Your task to perform on an android device: change the clock display to show seconds Image 0: 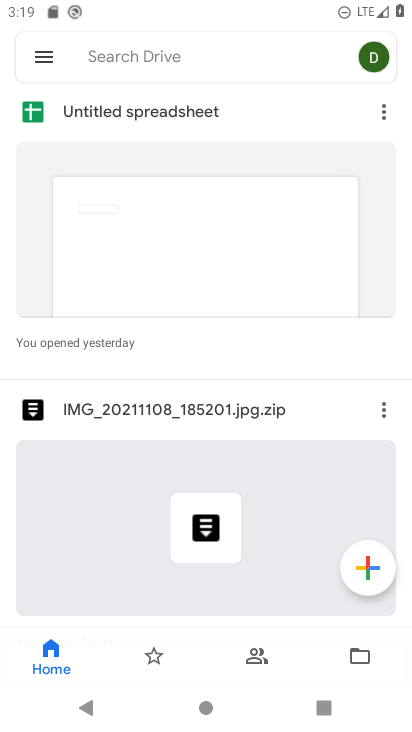
Step 0: press home button
Your task to perform on an android device: change the clock display to show seconds Image 1: 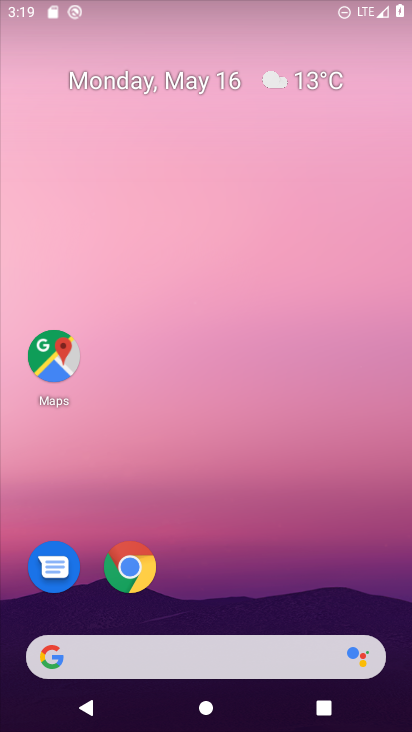
Step 1: drag from (346, 601) to (296, 0)
Your task to perform on an android device: change the clock display to show seconds Image 2: 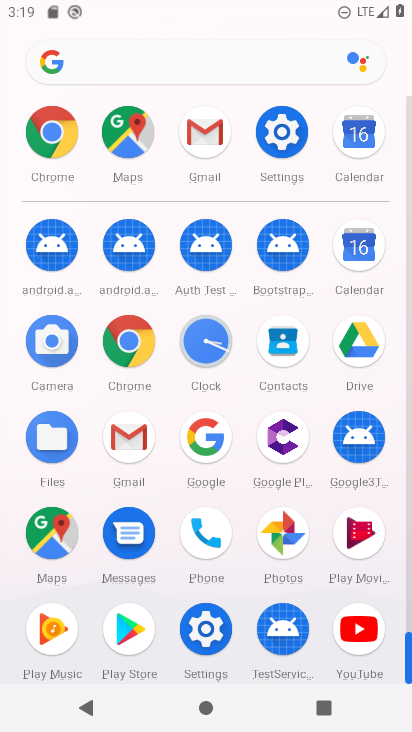
Step 2: click (189, 366)
Your task to perform on an android device: change the clock display to show seconds Image 3: 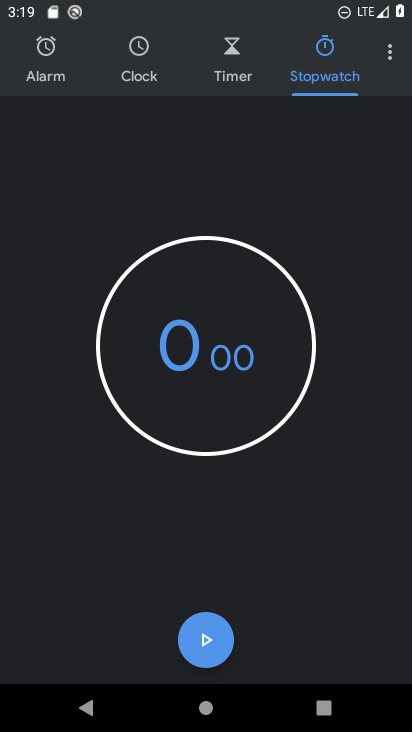
Step 3: click (384, 55)
Your task to perform on an android device: change the clock display to show seconds Image 4: 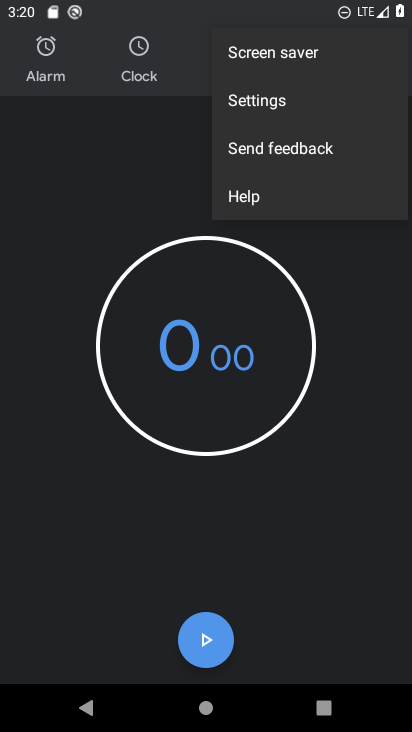
Step 4: click (270, 105)
Your task to perform on an android device: change the clock display to show seconds Image 5: 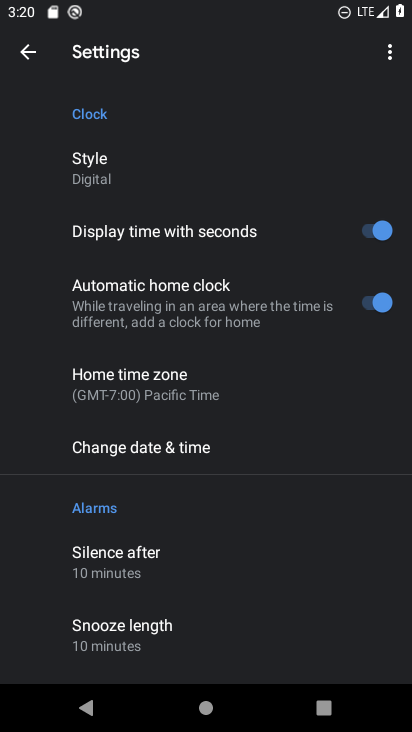
Step 5: task complete